Your task to perform on an android device: Go to network settings Image 0: 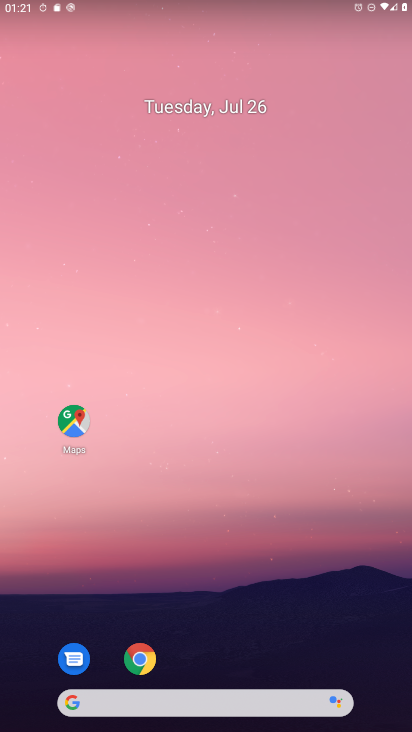
Step 0: drag from (279, 625) to (313, 109)
Your task to perform on an android device: Go to network settings Image 1: 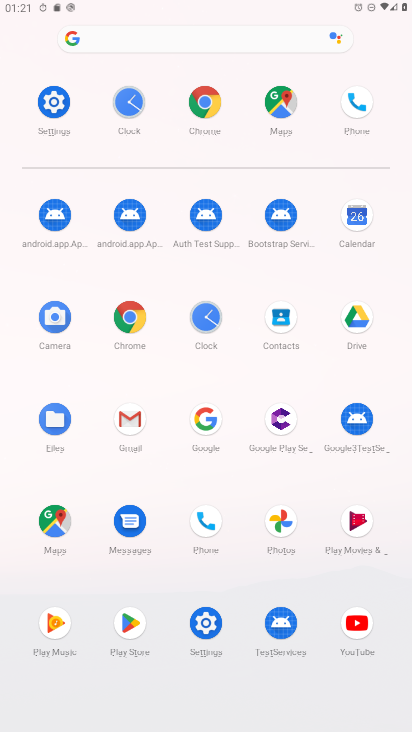
Step 1: click (206, 614)
Your task to perform on an android device: Go to network settings Image 2: 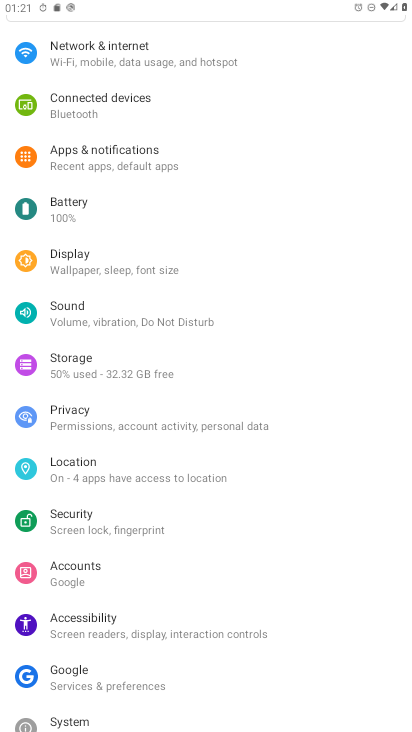
Step 2: click (111, 44)
Your task to perform on an android device: Go to network settings Image 3: 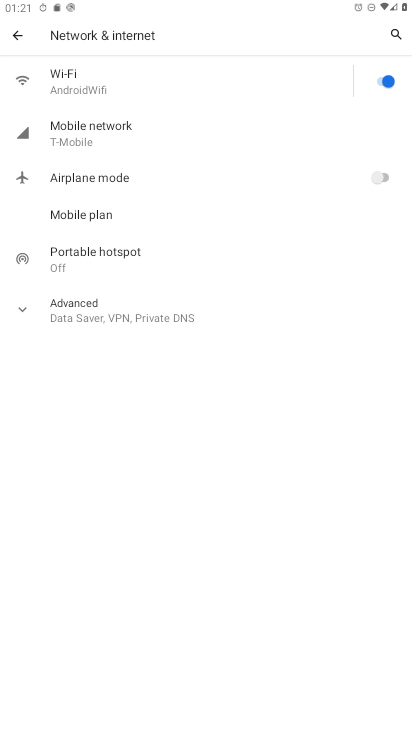
Step 3: task complete